Your task to perform on an android device: What is the recent news? Image 0: 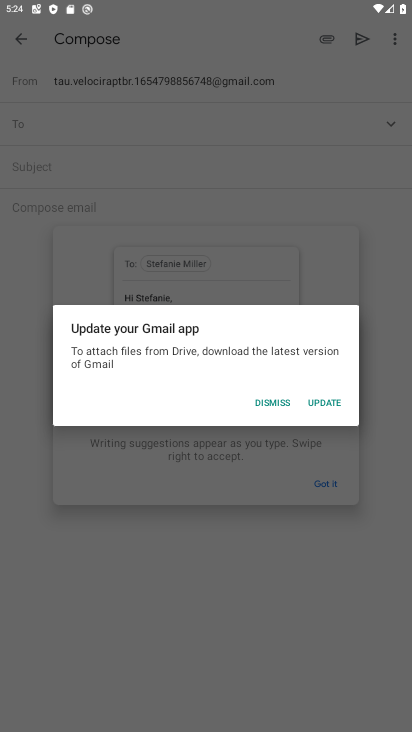
Step 0: click (259, 409)
Your task to perform on an android device: What is the recent news? Image 1: 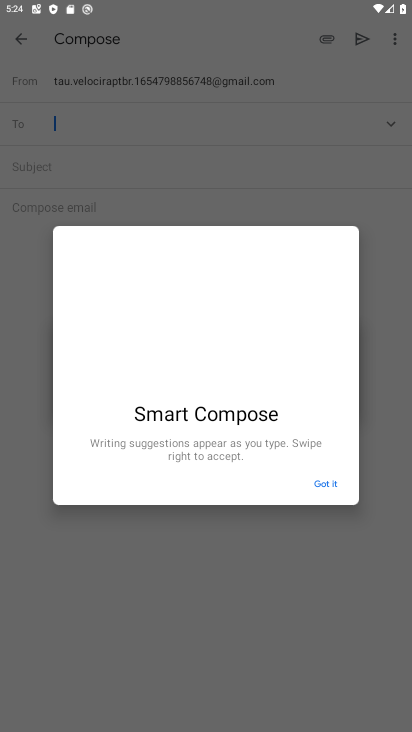
Step 1: press home button
Your task to perform on an android device: What is the recent news? Image 2: 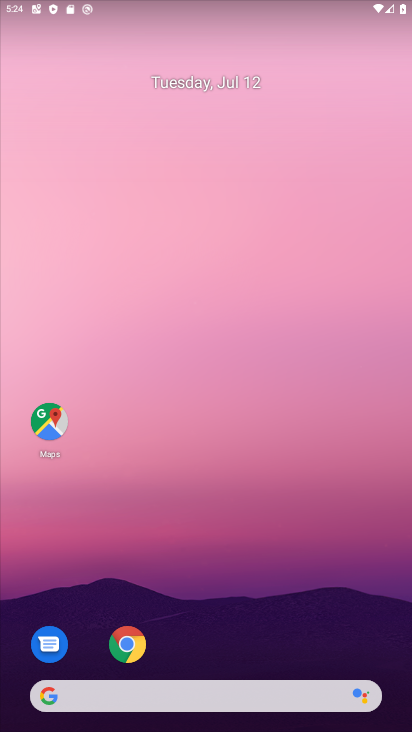
Step 2: click (136, 659)
Your task to perform on an android device: What is the recent news? Image 3: 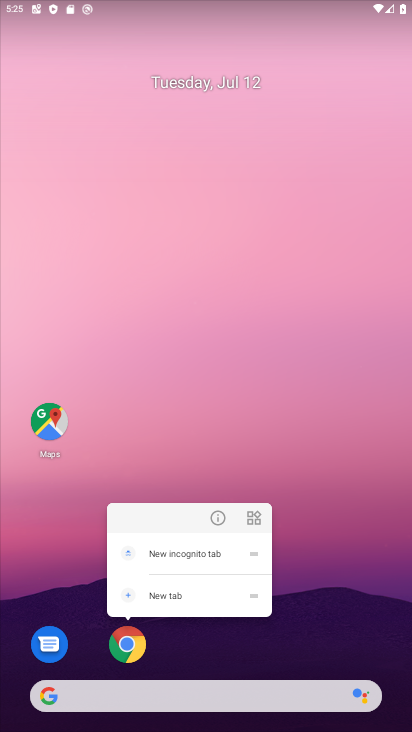
Step 3: click (332, 357)
Your task to perform on an android device: What is the recent news? Image 4: 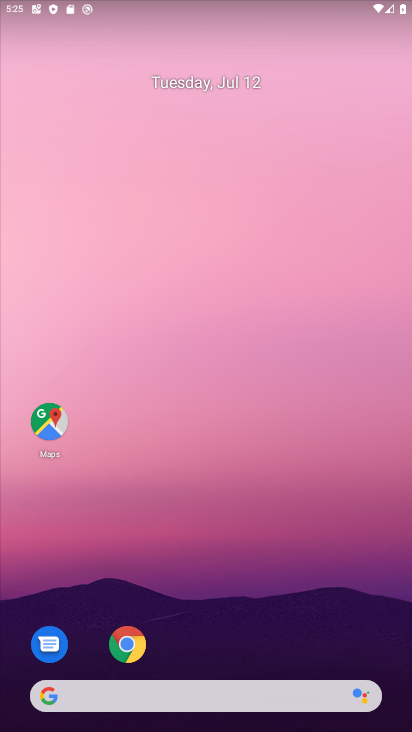
Step 4: drag from (374, 600) to (294, 134)
Your task to perform on an android device: What is the recent news? Image 5: 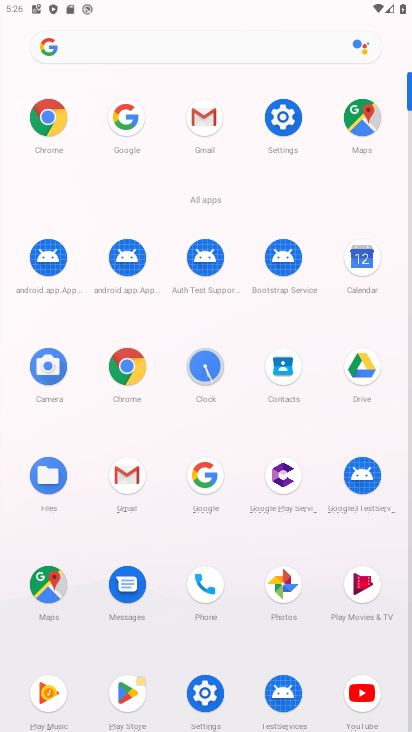
Step 5: click (74, 717)
Your task to perform on an android device: What is the recent news? Image 6: 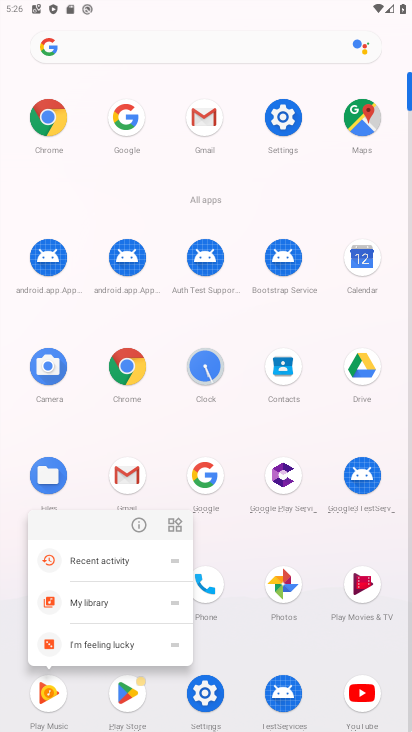
Step 6: click (347, 551)
Your task to perform on an android device: What is the recent news? Image 7: 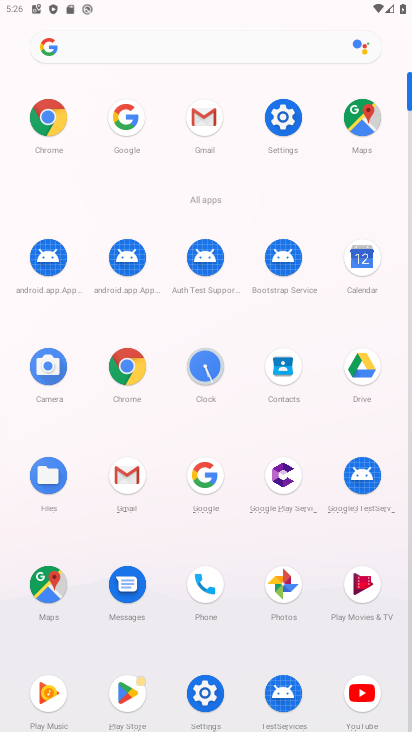
Step 7: click (48, 121)
Your task to perform on an android device: What is the recent news? Image 8: 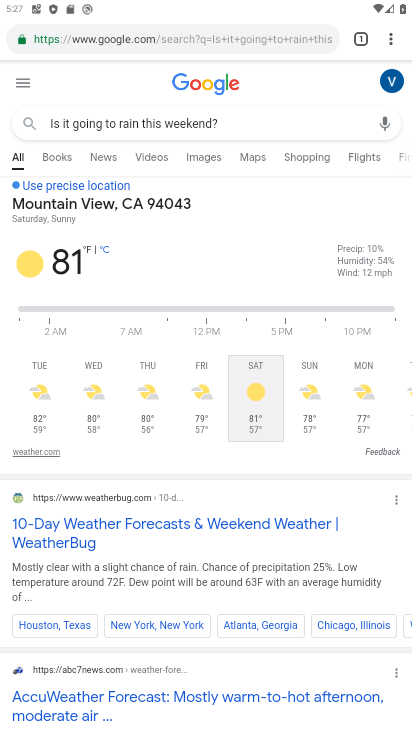
Step 8: click (193, 34)
Your task to perform on an android device: What is the recent news? Image 9: 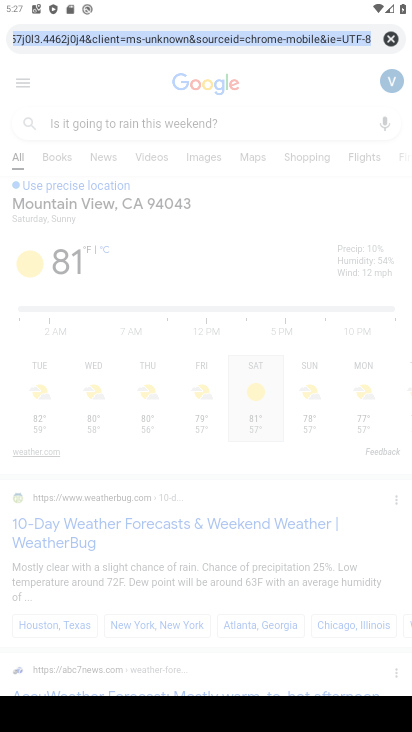
Step 9: click (394, 37)
Your task to perform on an android device: What is the recent news? Image 10: 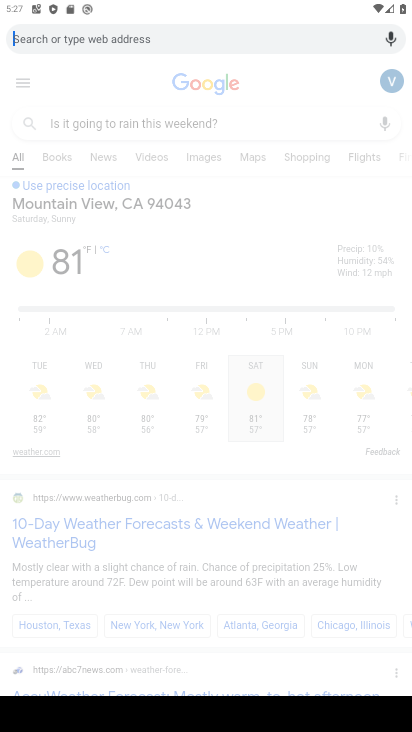
Step 10: type " recent news?"
Your task to perform on an android device: What is the recent news? Image 11: 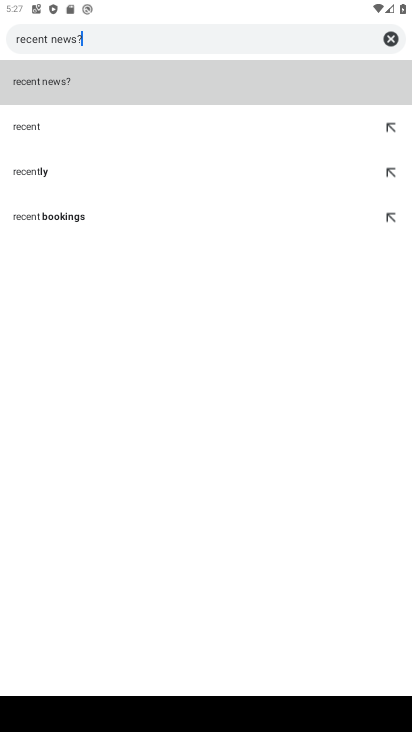
Step 11: type ""
Your task to perform on an android device: What is the recent news? Image 12: 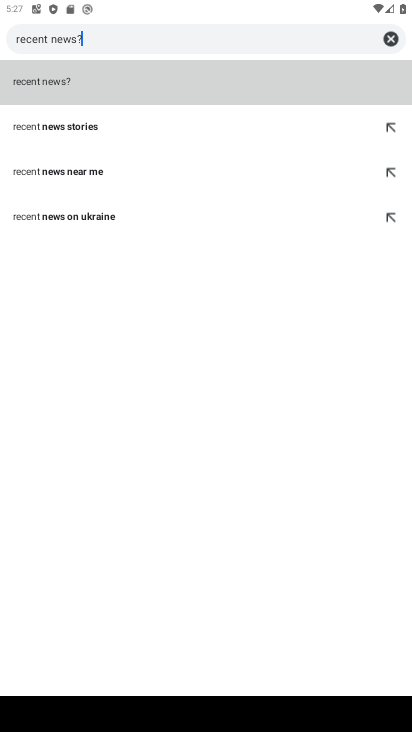
Step 12: click (82, 69)
Your task to perform on an android device: What is the recent news? Image 13: 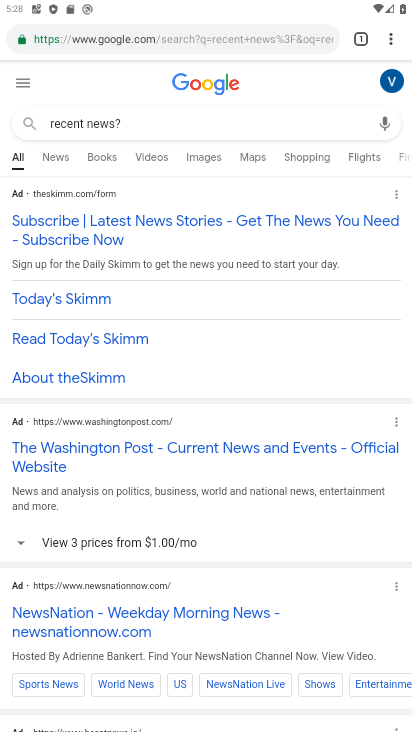
Step 13: task complete